Your task to perform on an android device: snooze an email in the gmail app Image 0: 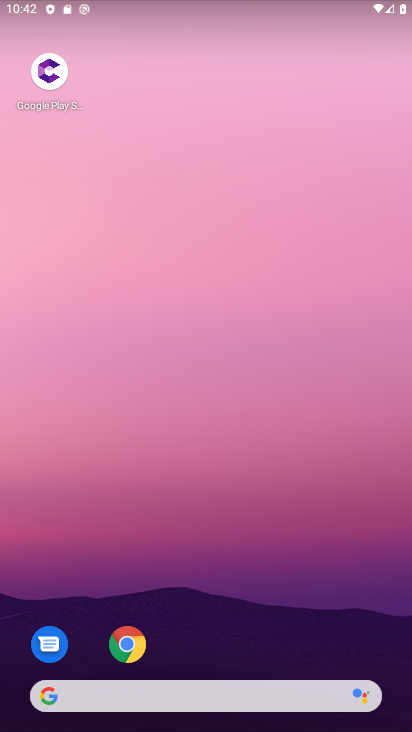
Step 0: drag from (272, 619) to (198, 47)
Your task to perform on an android device: snooze an email in the gmail app Image 1: 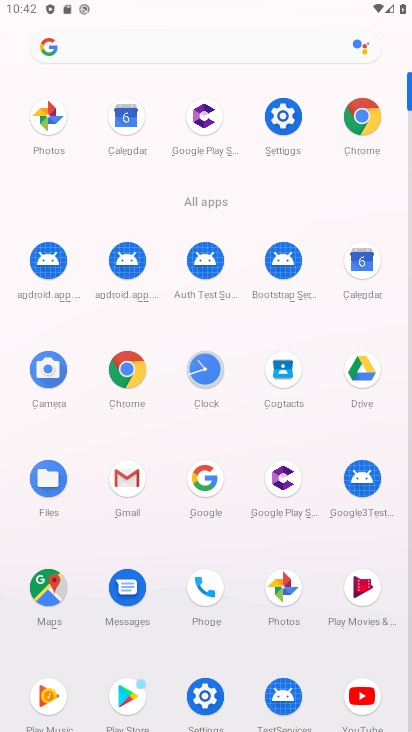
Step 1: click (131, 479)
Your task to perform on an android device: snooze an email in the gmail app Image 2: 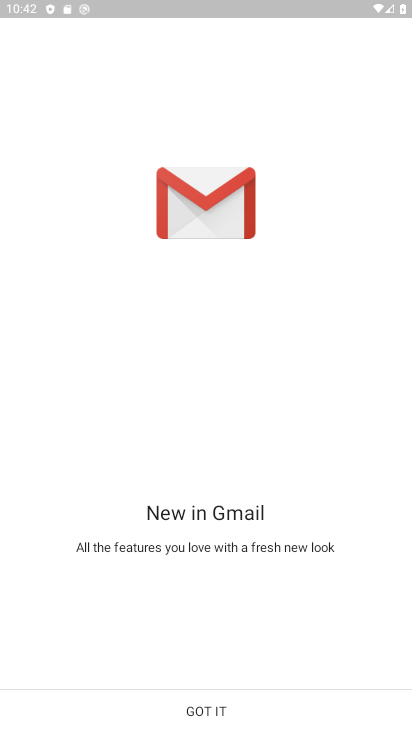
Step 2: click (241, 720)
Your task to perform on an android device: snooze an email in the gmail app Image 3: 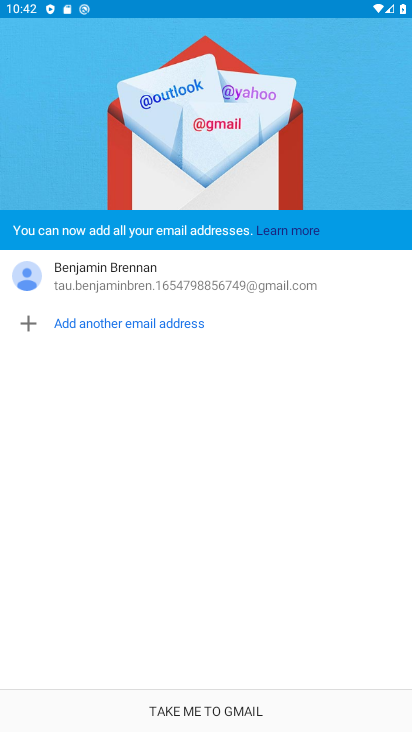
Step 3: click (241, 720)
Your task to perform on an android device: snooze an email in the gmail app Image 4: 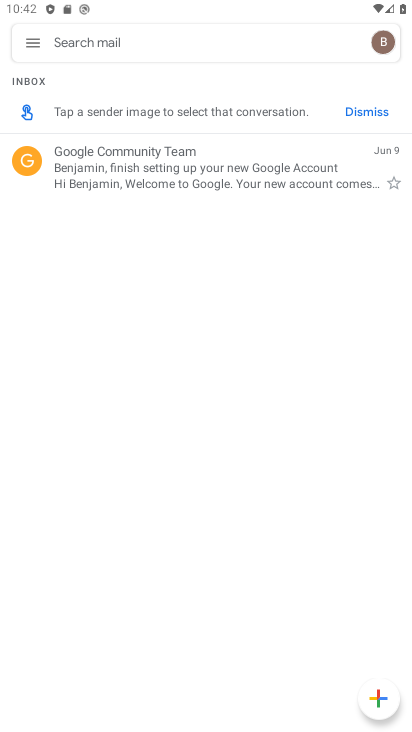
Step 4: click (269, 176)
Your task to perform on an android device: snooze an email in the gmail app Image 5: 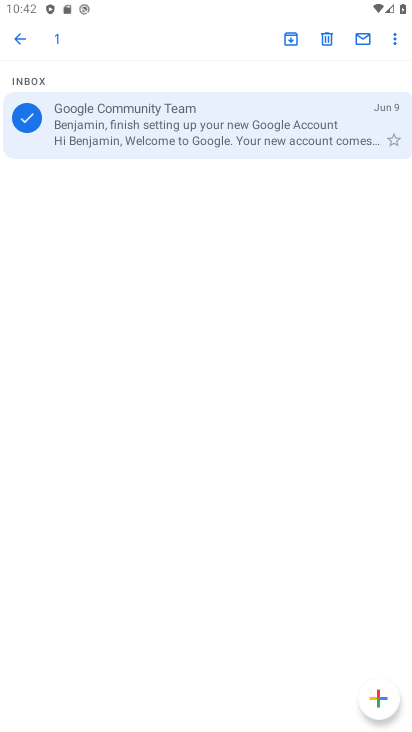
Step 5: click (400, 41)
Your task to perform on an android device: snooze an email in the gmail app Image 6: 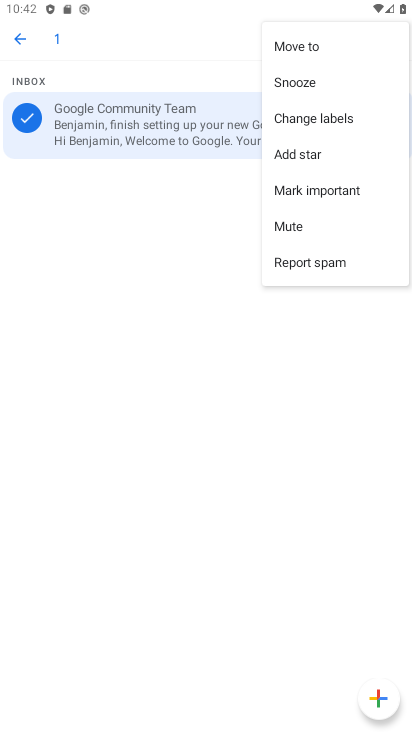
Step 6: click (379, 80)
Your task to perform on an android device: snooze an email in the gmail app Image 7: 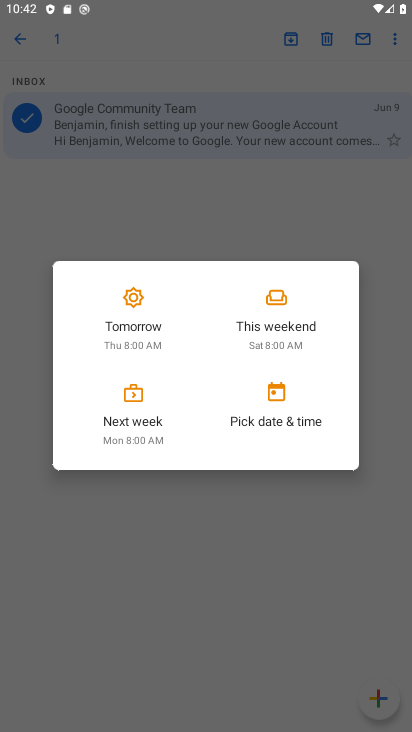
Step 7: click (150, 318)
Your task to perform on an android device: snooze an email in the gmail app Image 8: 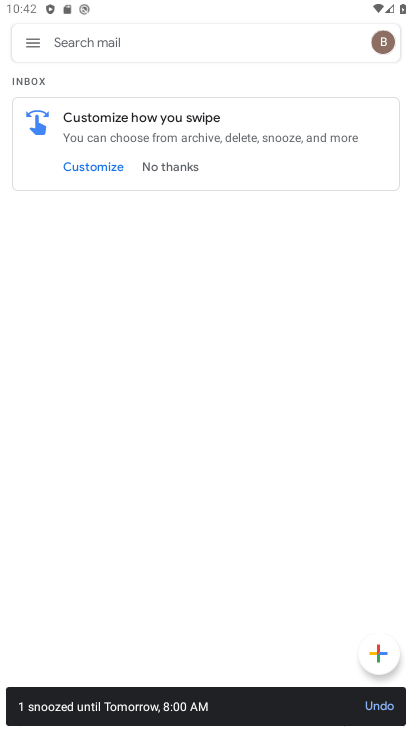
Step 8: task complete